Your task to perform on an android device: Search for Italian restaurants on Maps Image 0: 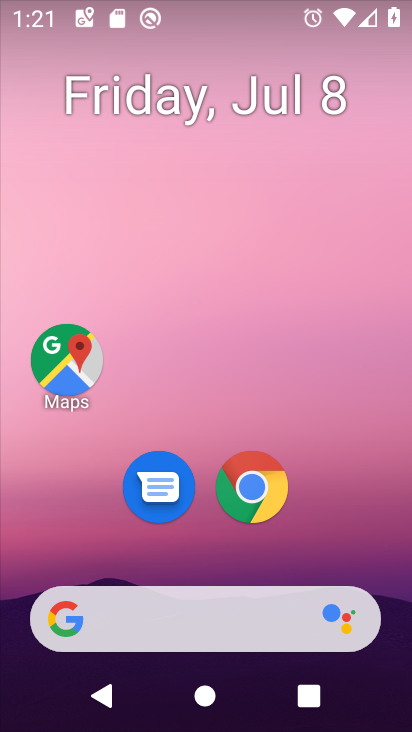
Step 0: drag from (371, 536) to (365, 189)
Your task to perform on an android device: Search for Italian restaurants on Maps Image 1: 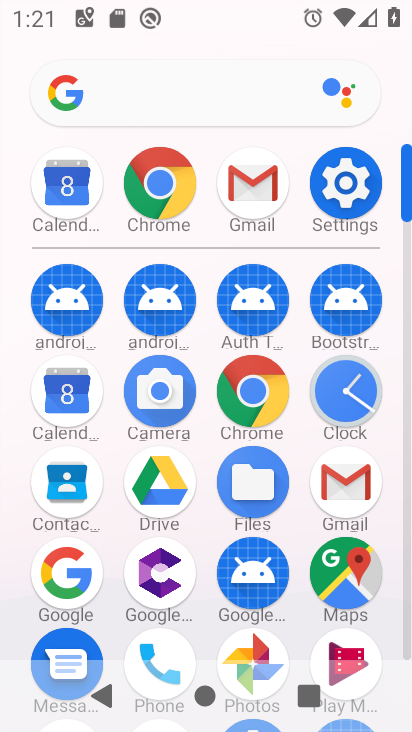
Step 1: click (351, 570)
Your task to perform on an android device: Search for Italian restaurants on Maps Image 2: 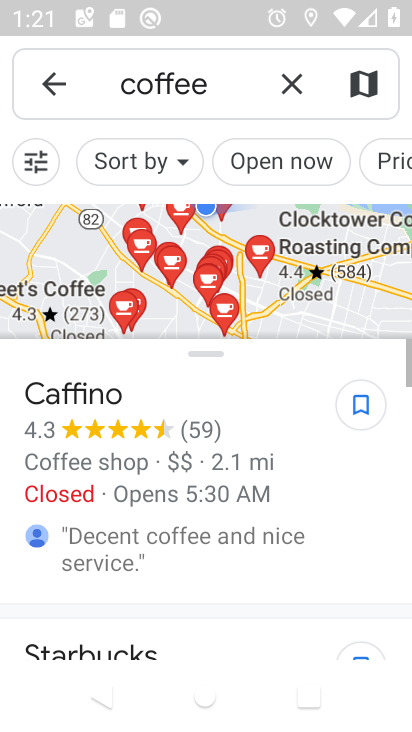
Step 2: press back button
Your task to perform on an android device: Search for Italian restaurants on Maps Image 3: 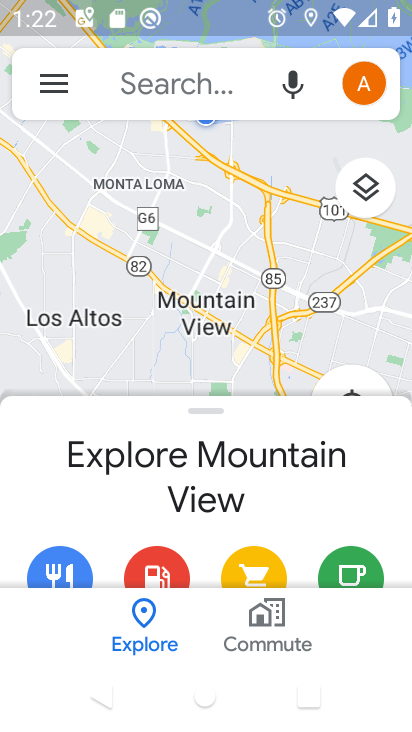
Step 3: click (204, 82)
Your task to perform on an android device: Search for Italian restaurants on Maps Image 4: 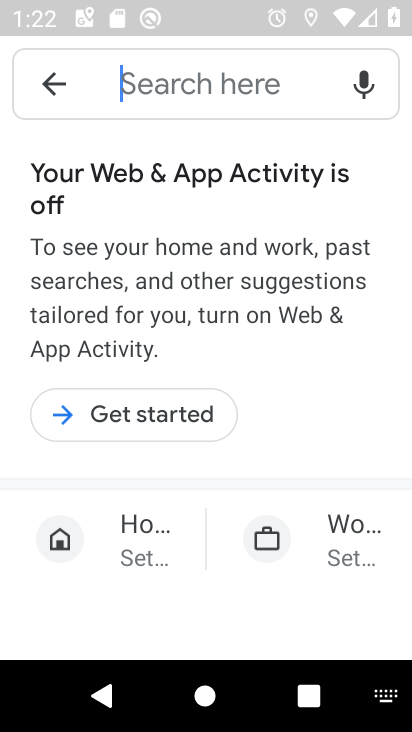
Step 4: type "italian restaurants"
Your task to perform on an android device: Search for Italian restaurants on Maps Image 5: 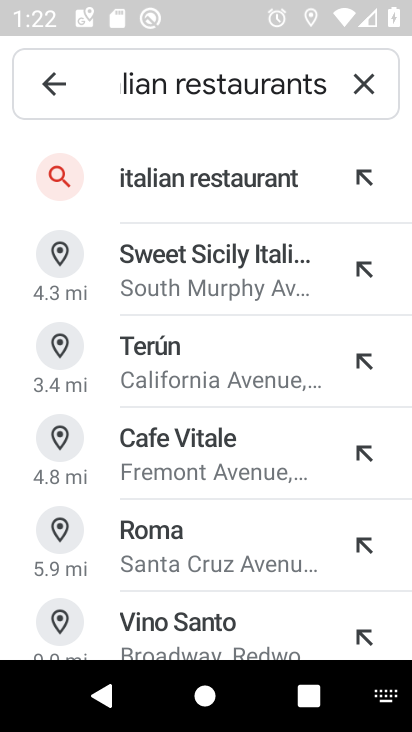
Step 5: click (280, 196)
Your task to perform on an android device: Search for Italian restaurants on Maps Image 6: 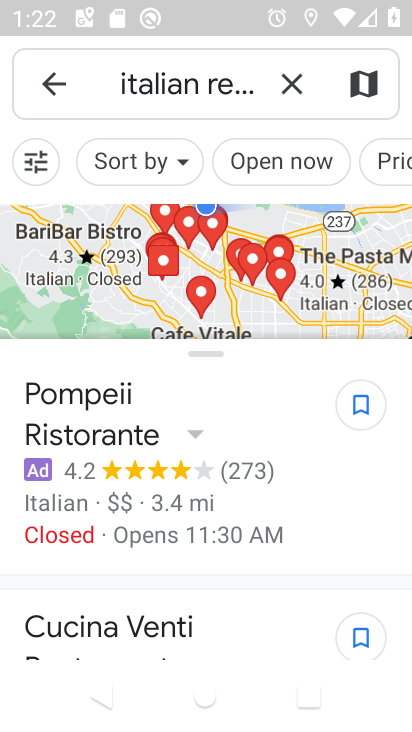
Step 6: task complete